Your task to perform on an android device: turn on wifi Image 0: 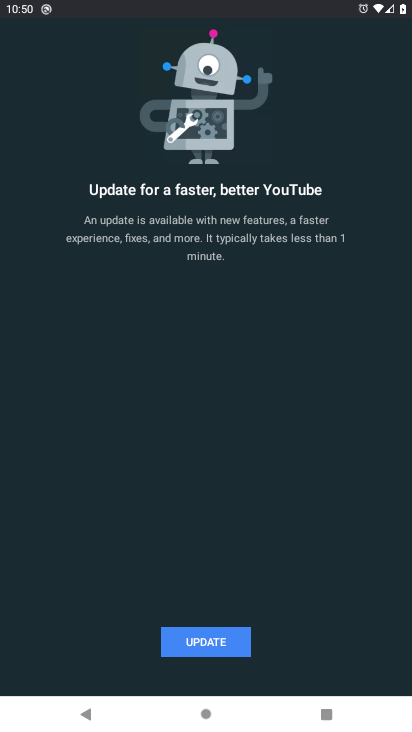
Step 0: press home button
Your task to perform on an android device: turn on wifi Image 1: 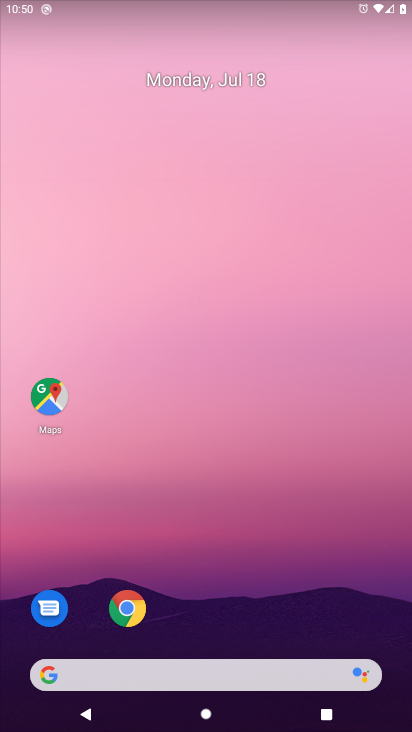
Step 1: drag from (127, 310) to (179, 44)
Your task to perform on an android device: turn on wifi Image 2: 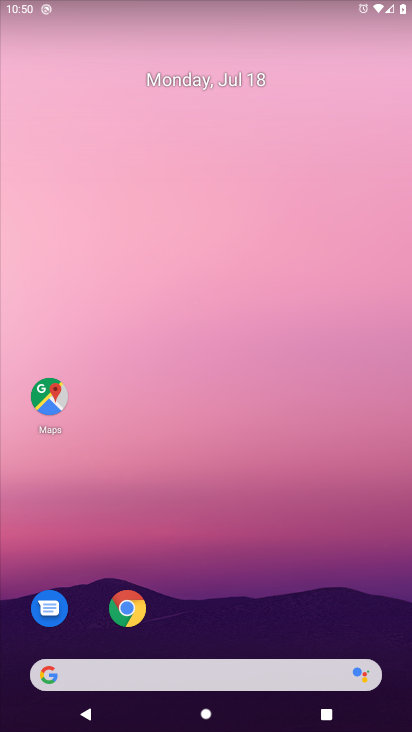
Step 2: drag from (113, 534) to (205, 353)
Your task to perform on an android device: turn on wifi Image 3: 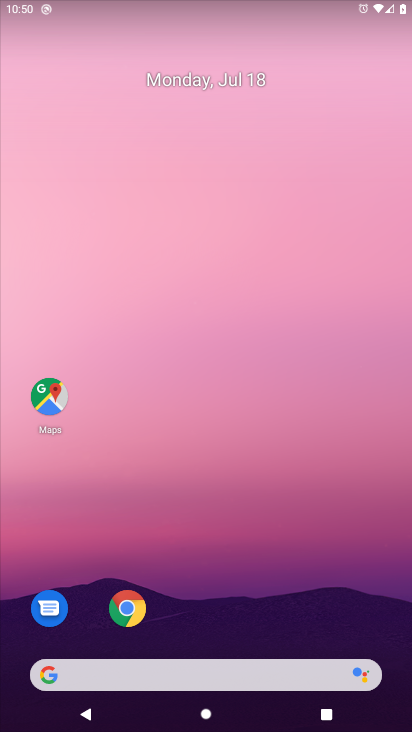
Step 3: drag from (31, 704) to (248, 27)
Your task to perform on an android device: turn on wifi Image 4: 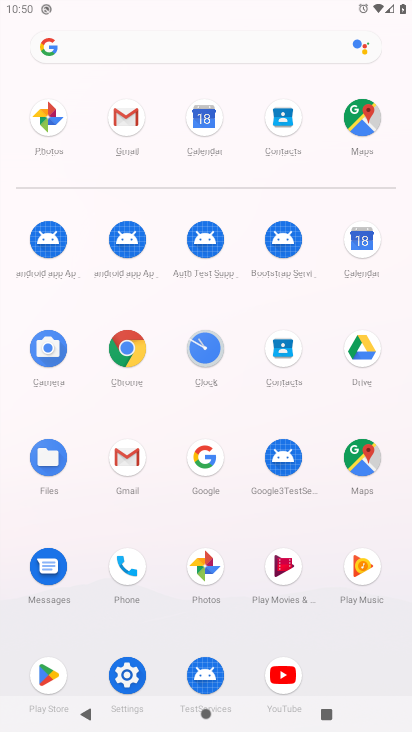
Step 4: click (122, 665)
Your task to perform on an android device: turn on wifi Image 5: 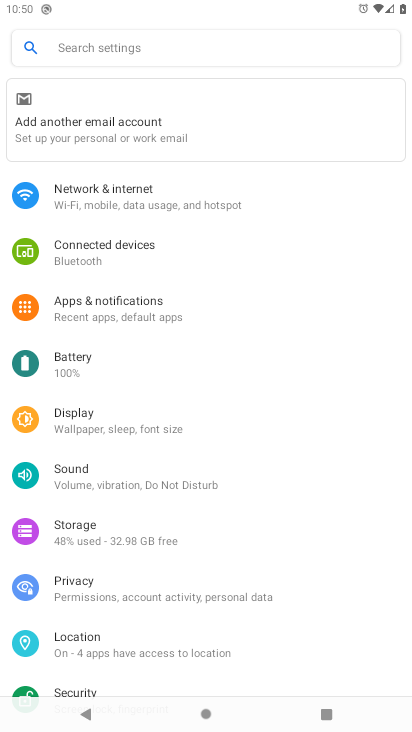
Step 5: click (116, 194)
Your task to perform on an android device: turn on wifi Image 6: 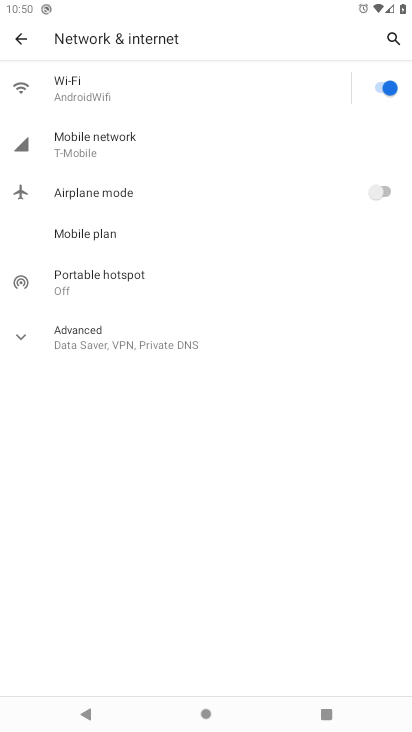
Step 6: task complete